Your task to perform on an android device: Go to Yahoo.com Image 0: 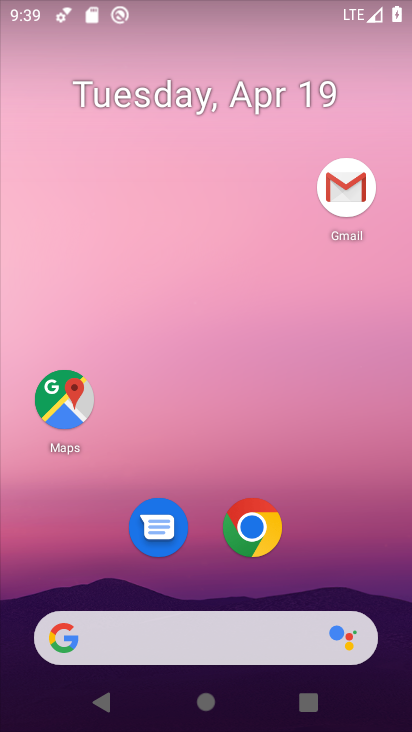
Step 0: drag from (367, 563) to (361, 122)
Your task to perform on an android device: Go to Yahoo.com Image 1: 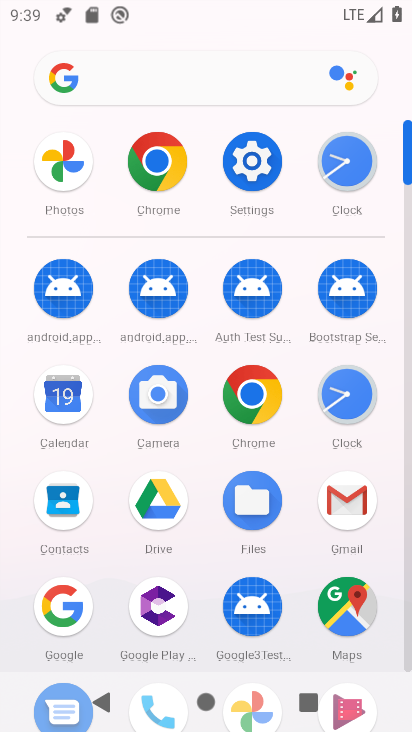
Step 1: click (263, 403)
Your task to perform on an android device: Go to Yahoo.com Image 2: 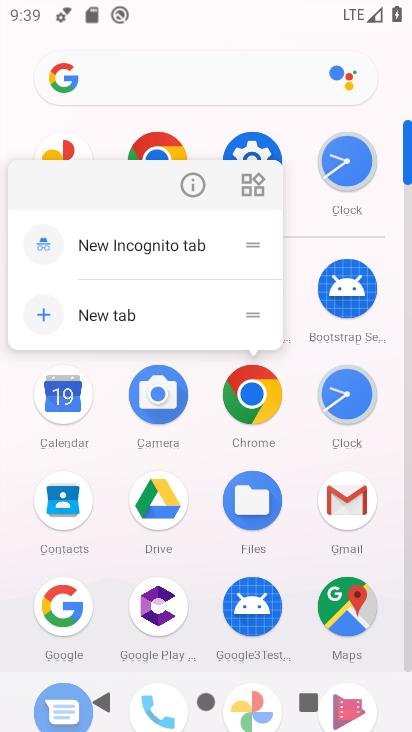
Step 2: click (263, 403)
Your task to perform on an android device: Go to Yahoo.com Image 3: 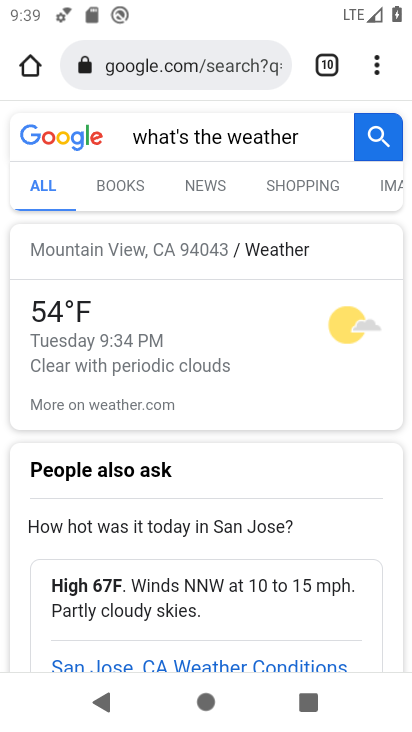
Step 3: click (240, 65)
Your task to perform on an android device: Go to Yahoo.com Image 4: 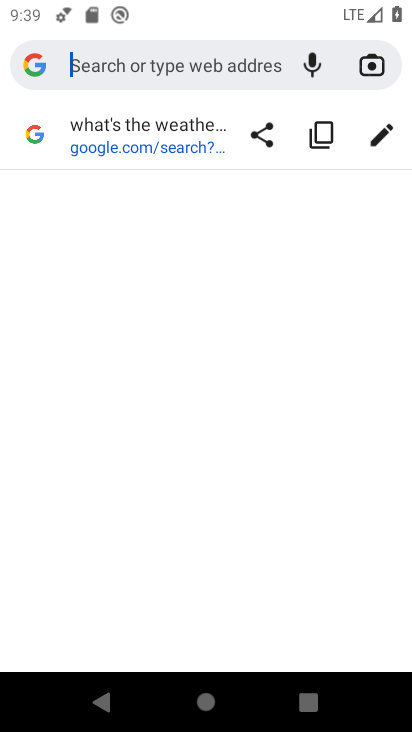
Step 4: type "yahoo.com"
Your task to perform on an android device: Go to Yahoo.com Image 5: 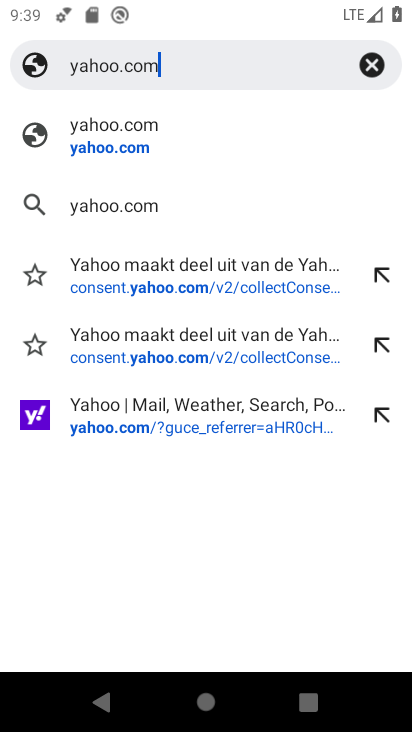
Step 5: click (124, 151)
Your task to perform on an android device: Go to Yahoo.com Image 6: 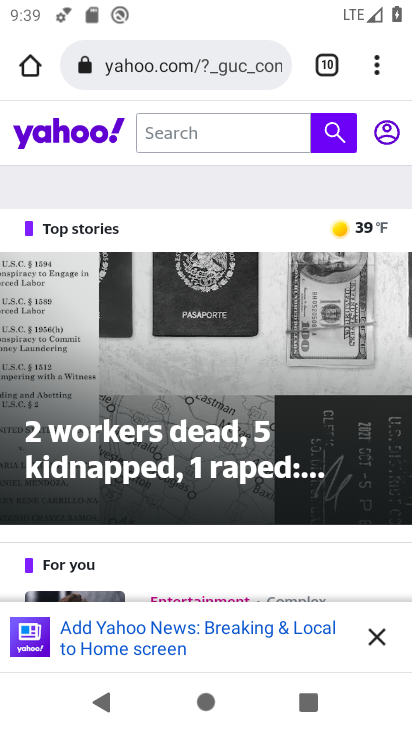
Step 6: task complete